Your task to perform on an android device: Turn on the flashlight Image 0: 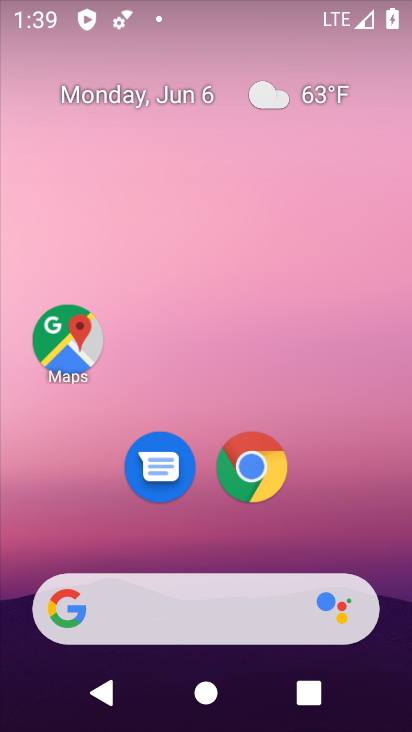
Step 0: drag from (394, 603) to (368, 300)
Your task to perform on an android device: Turn on the flashlight Image 1: 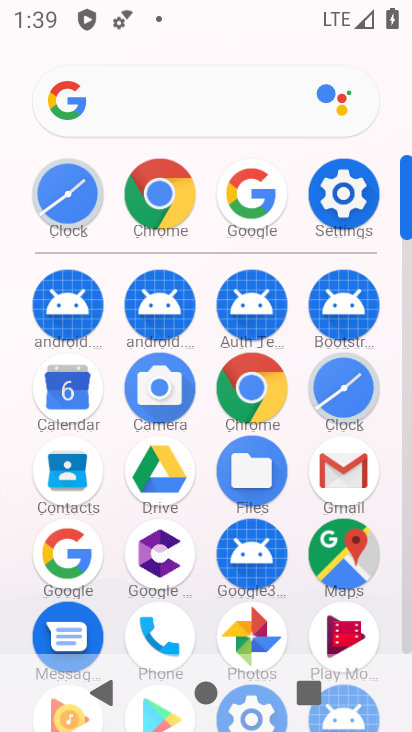
Step 1: click (343, 200)
Your task to perform on an android device: Turn on the flashlight Image 2: 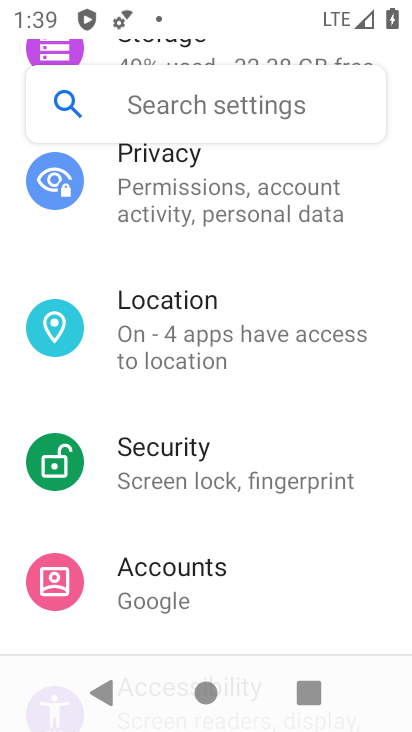
Step 2: task complete